Your task to perform on an android device: set the timer Image 0: 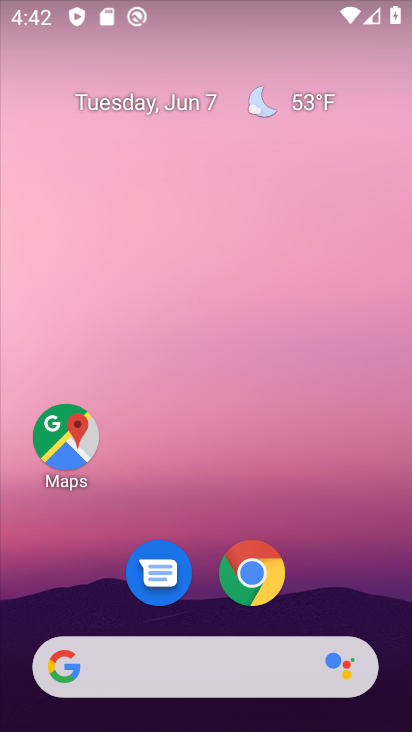
Step 0: drag from (213, 647) to (229, 161)
Your task to perform on an android device: set the timer Image 1: 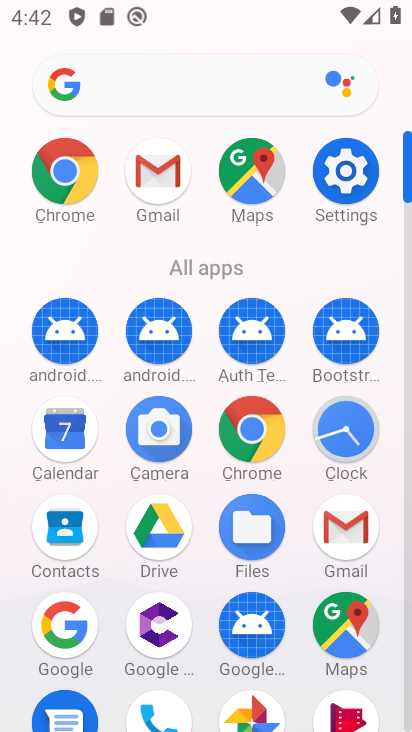
Step 1: click (332, 419)
Your task to perform on an android device: set the timer Image 2: 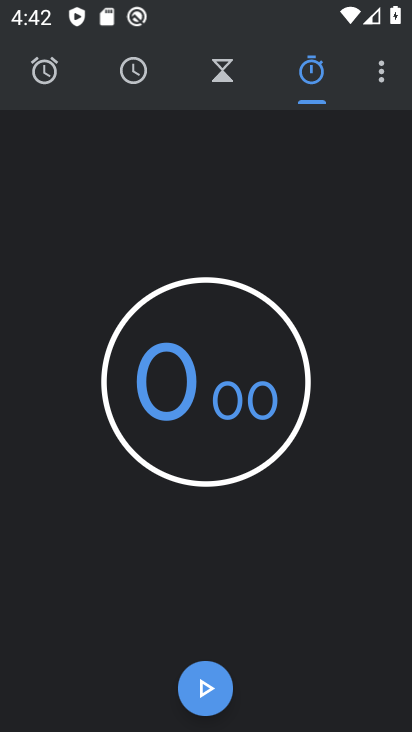
Step 2: click (222, 84)
Your task to perform on an android device: set the timer Image 3: 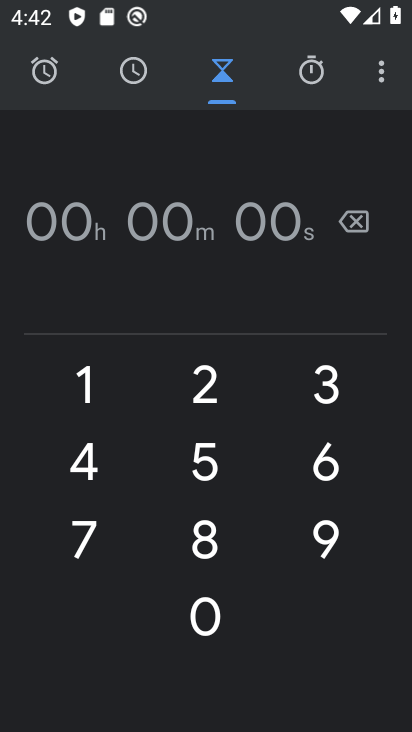
Step 3: click (205, 639)
Your task to perform on an android device: set the timer Image 4: 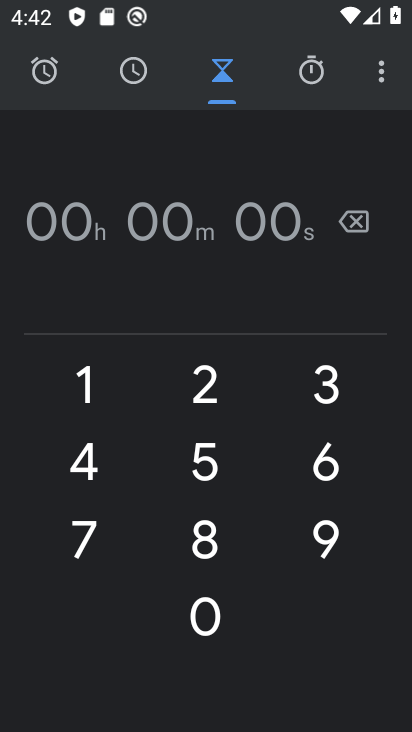
Step 4: click (207, 458)
Your task to perform on an android device: set the timer Image 5: 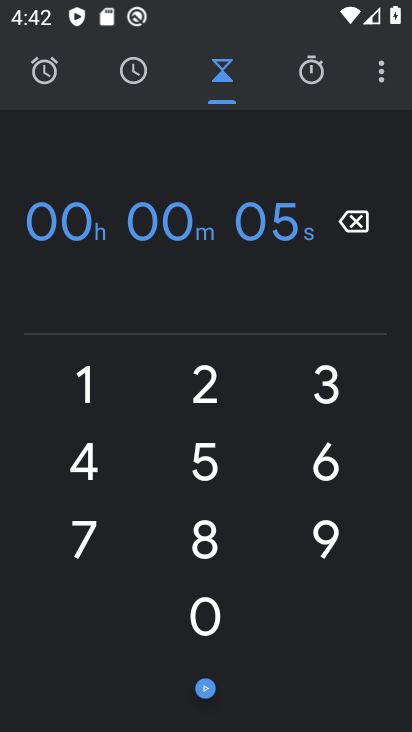
Step 5: click (199, 608)
Your task to perform on an android device: set the timer Image 6: 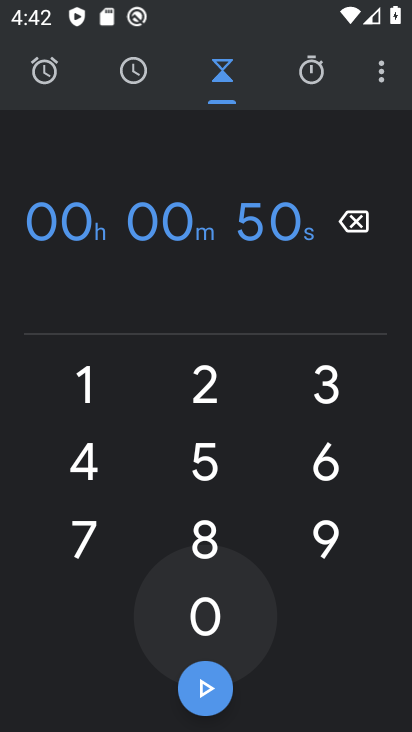
Step 6: click (199, 608)
Your task to perform on an android device: set the timer Image 7: 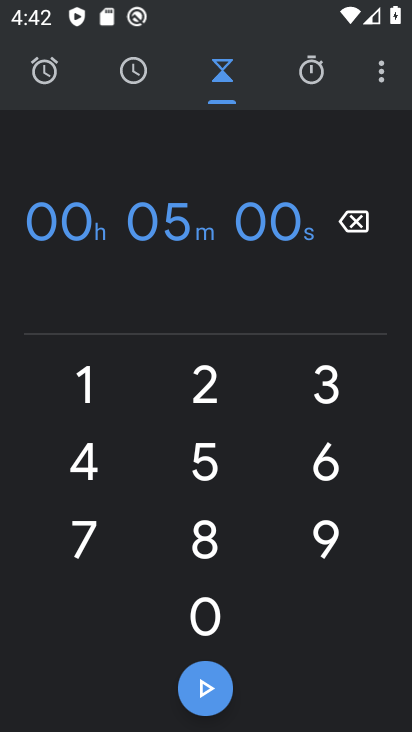
Step 7: click (199, 694)
Your task to perform on an android device: set the timer Image 8: 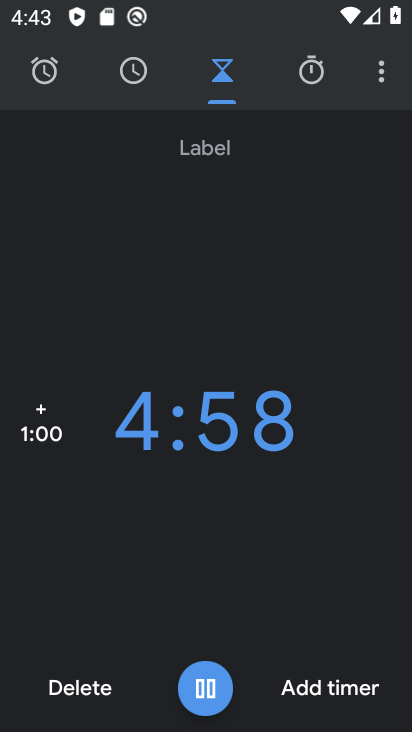
Step 8: task complete